Your task to perform on an android device: Open Yahoo.com Image 0: 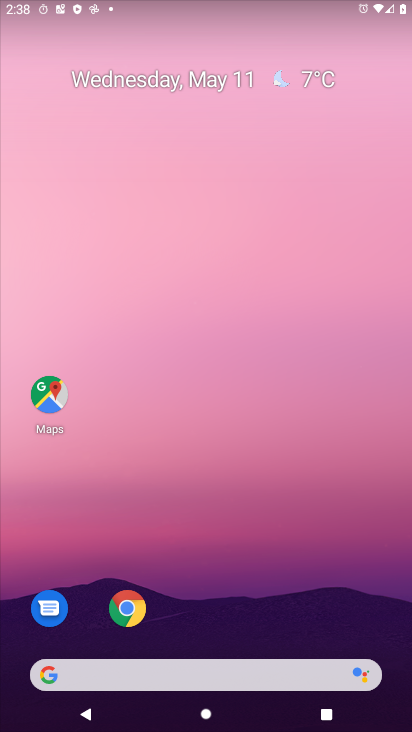
Step 0: drag from (211, 605) to (212, 49)
Your task to perform on an android device: Open Yahoo.com Image 1: 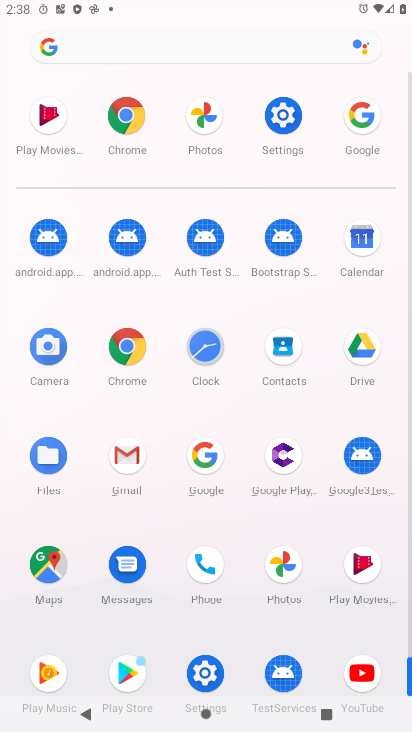
Step 1: click (130, 112)
Your task to perform on an android device: Open Yahoo.com Image 2: 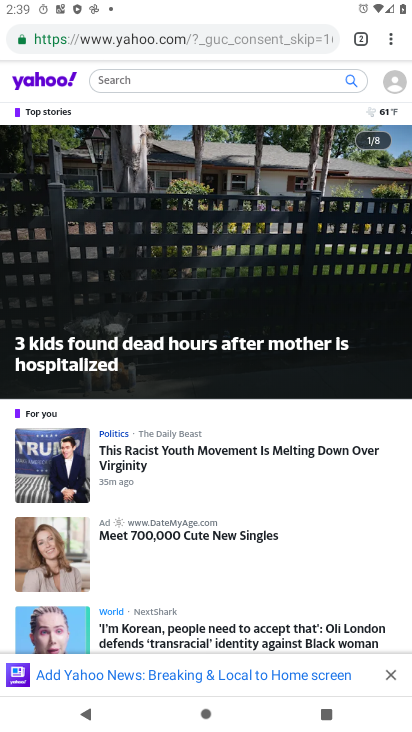
Step 2: task complete